Your task to perform on an android device: Open Youtube and go to the subscriptions tab Image 0: 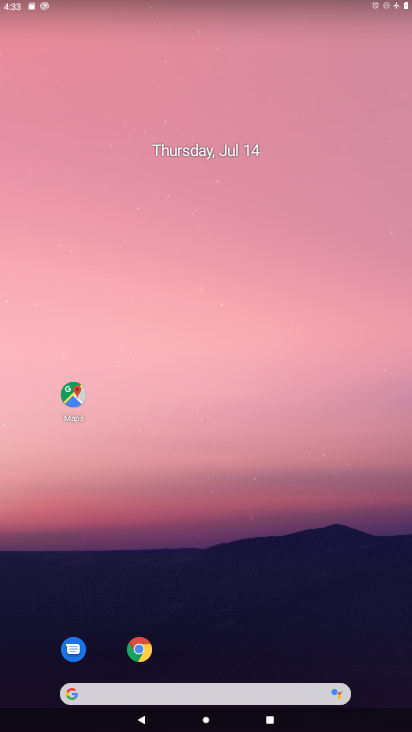
Step 0: drag from (269, 635) to (265, 102)
Your task to perform on an android device: Open Youtube and go to the subscriptions tab Image 1: 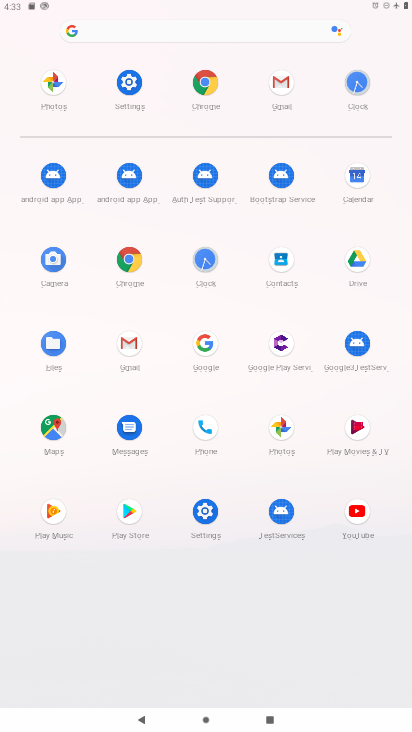
Step 1: click (363, 519)
Your task to perform on an android device: Open Youtube and go to the subscriptions tab Image 2: 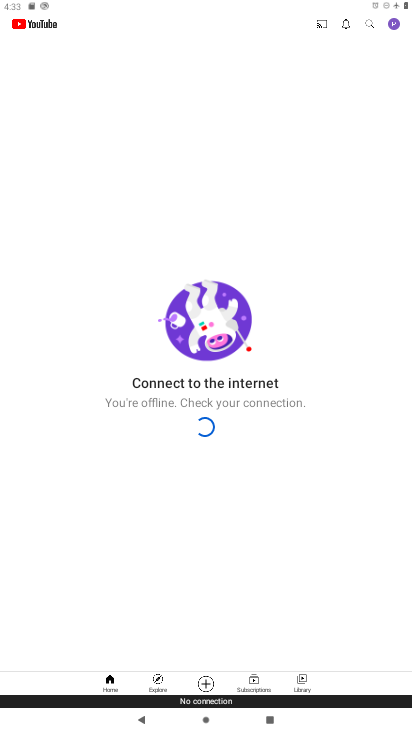
Step 2: task complete